Your task to perform on an android device: Go to Yahoo.com Image 0: 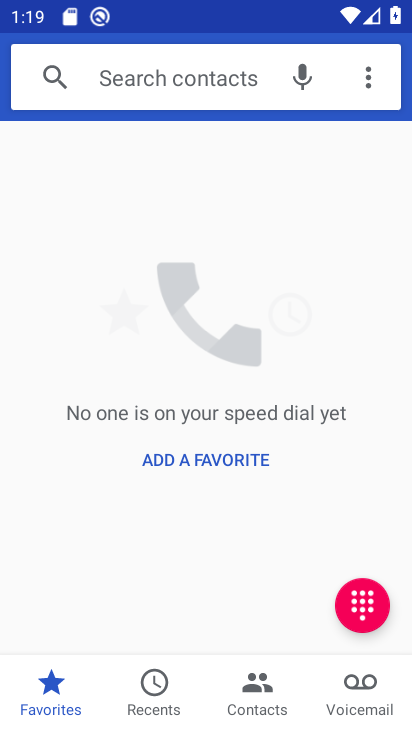
Step 0: press home button
Your task to perform on an android device: Go to Yahoo.com Image 1: 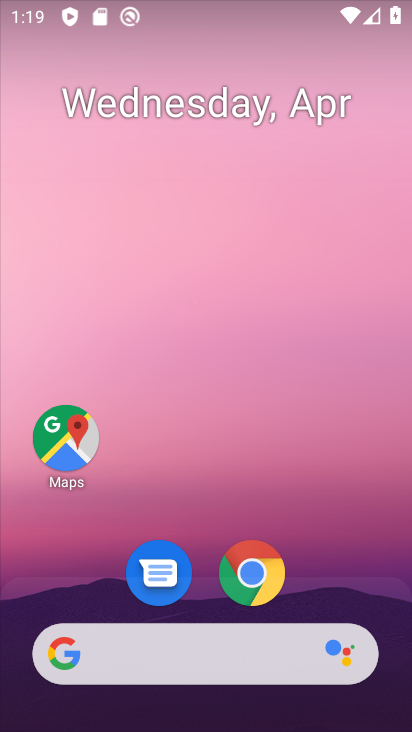
Step 1: drag from (209, 514) to (313, 99)
Your task to perform on an android device: Go to Yahoo.com Image 2: 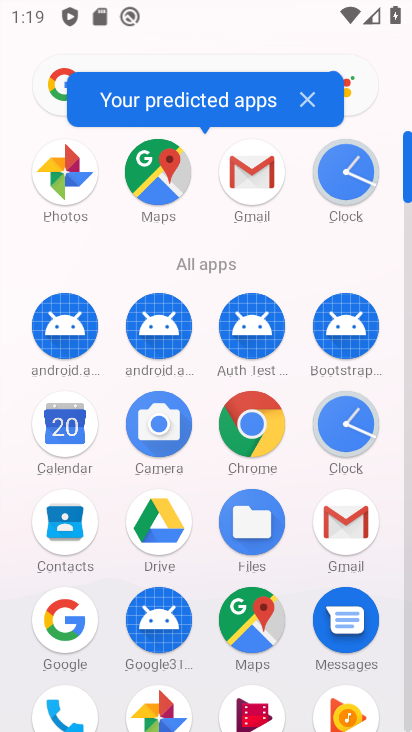
Step 2: click (263, 435)
Your task to perform on an android device: Go to Yahoo.com Image 3: 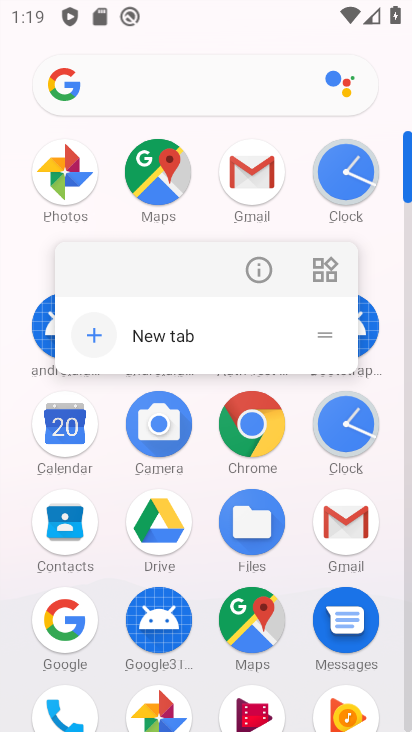
Step 3: click (257, 428)
Your task to perform on an android device: Go to Yahoo.com Image 4: 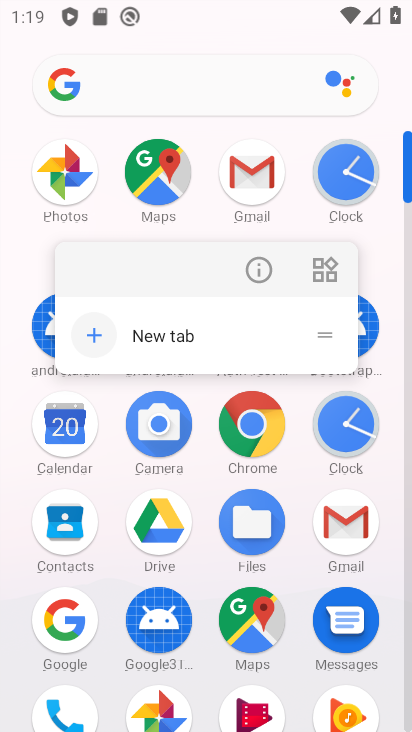
Step 4: click (253, 428)
Your task to perform on an android device: Go to Yahoo.com Image 5: 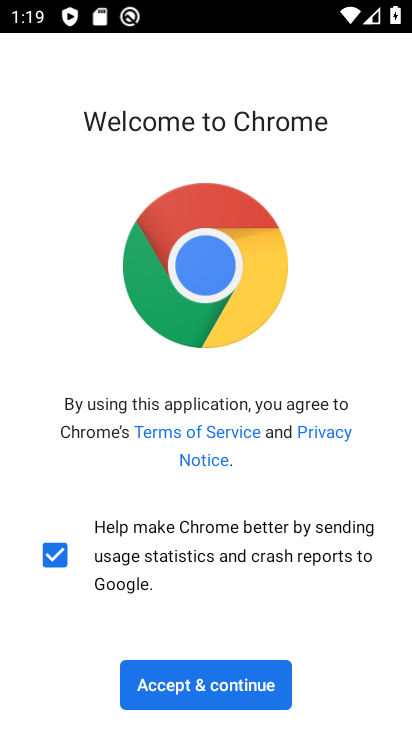
Step 5: click (193, 674)
Your task to perform on an android device: Go to Yahoo.com Image 6: 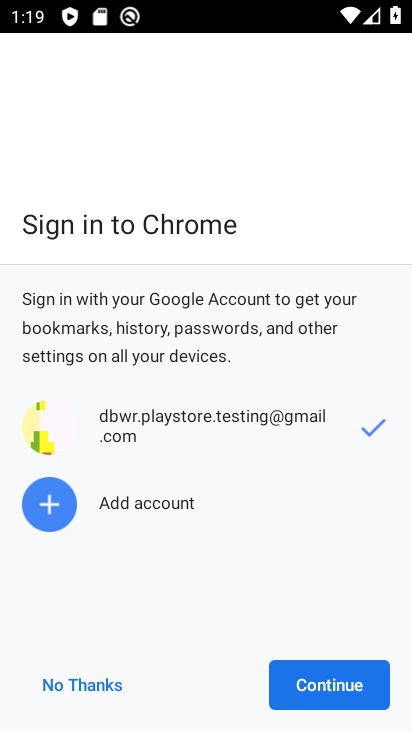
Step 6: click (316, 693)
Your task to perform on an android device: Go to Yahoo.com Image 7: 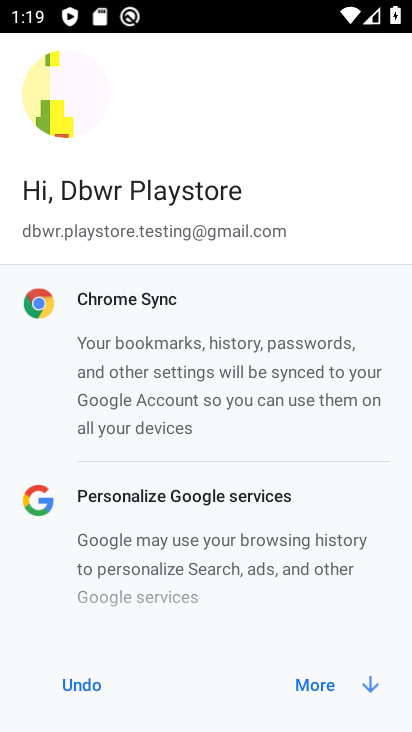
Step 7: click (325, 686)
Your task to perform on an android device: Go to Yahoo.com Image 8: 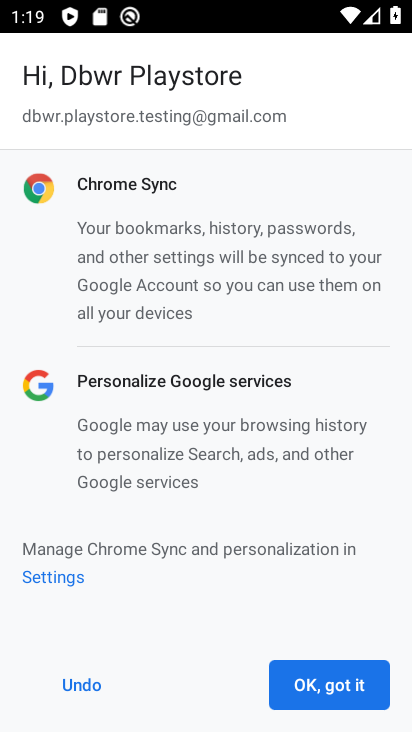
Step 8: click (325, 686)
Your task to perform on an android device: Go to Yahoo.com Image 9: 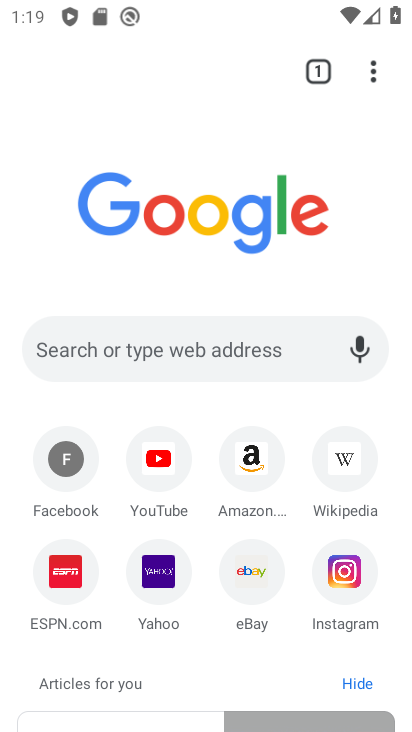
Step 9: click (163, 574)
Your task to perform on an android device: Go to Yahoo.com Image 10: 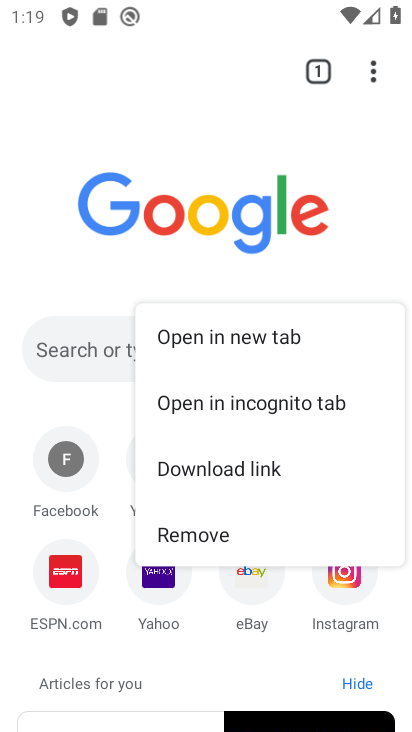
Step 10: click (160, 582)
Your task to perform on an android device: Go to Yahoo.com Image 11: 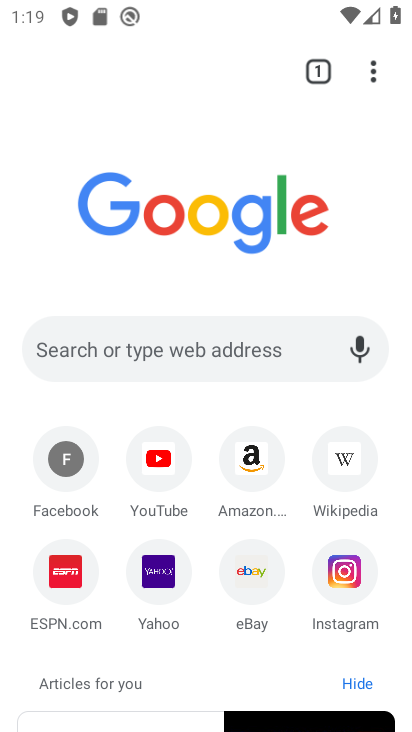
Step 11: click (157, 574)
Your task to perform on an android device: Go to Yahoo.com Image 12: 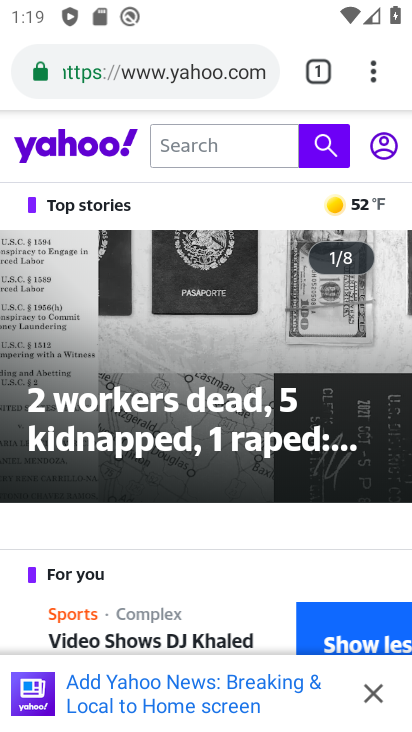
Step 12: task complete